Your task to perform on an android device: clear history in the chrome app Image 0: 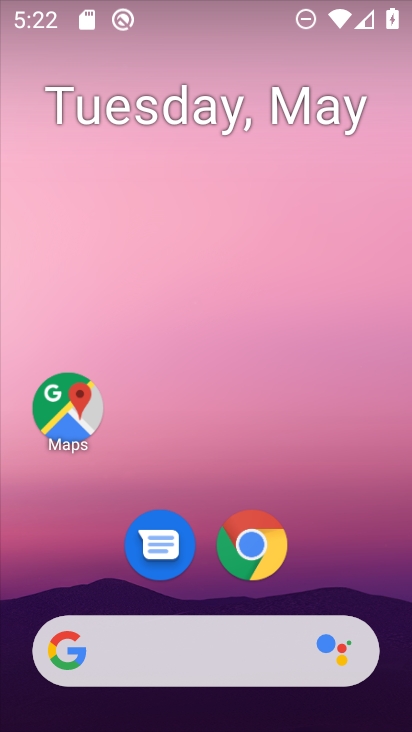
Step 0: drag from (324, 545) to (243, 5)
Your task to perform on an android device: clear history in the chrome app Image 1: 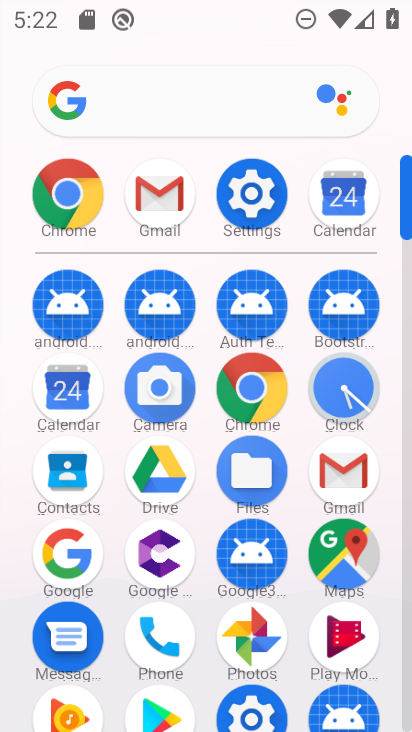
Step 1: drag from (12, 605) to (20, 290)
Your task to perform on an android device: clear history in the chrome app Image 2: 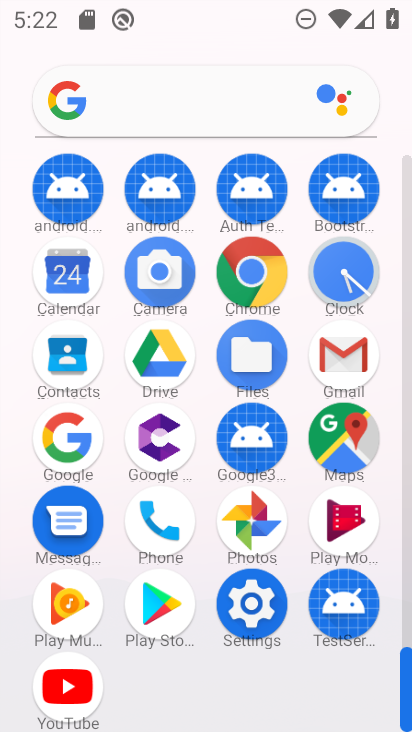
Step 2: click (256, 269)
Your task to perform on an android device: clear history in the chrome app Image 3: 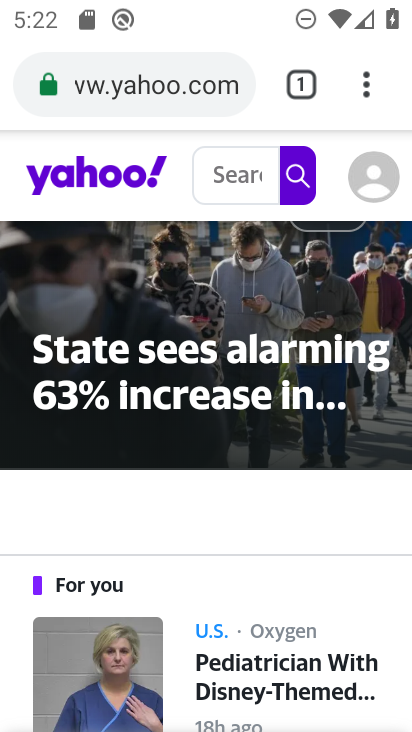
Step 3: drag from (366, 77) to (118, 488)
Your task to perform on an android device: clear history in the chrome app Image 4: 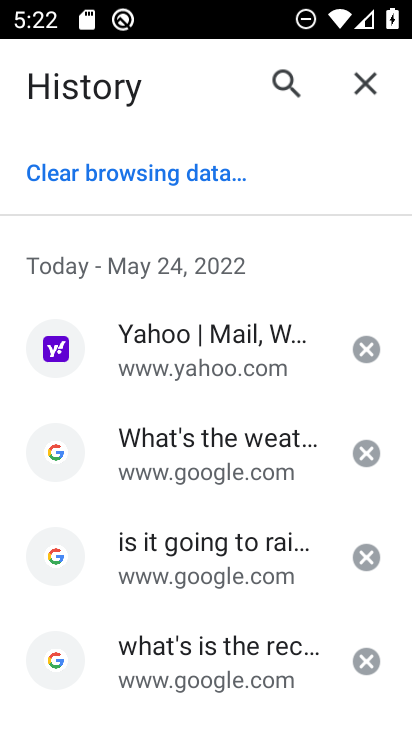
Step 4: click (198, 177)
Your task to perform on an android device: clear history in the chrome app Image 5: 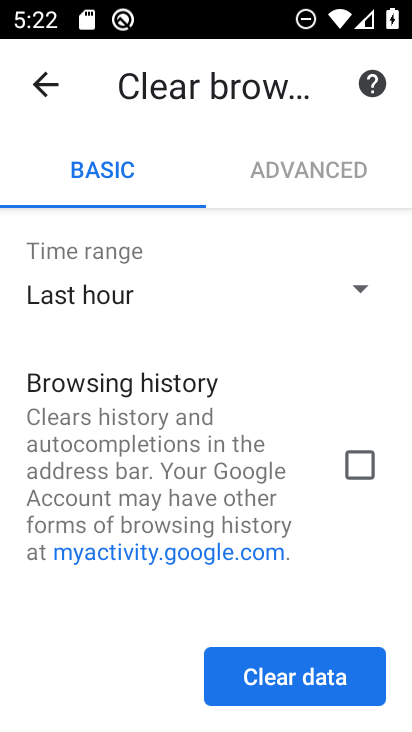
Step 5: drag from (137, 607) to (196, 409)
Your task to perform on an android device: clear history in the chrome app Image 6: 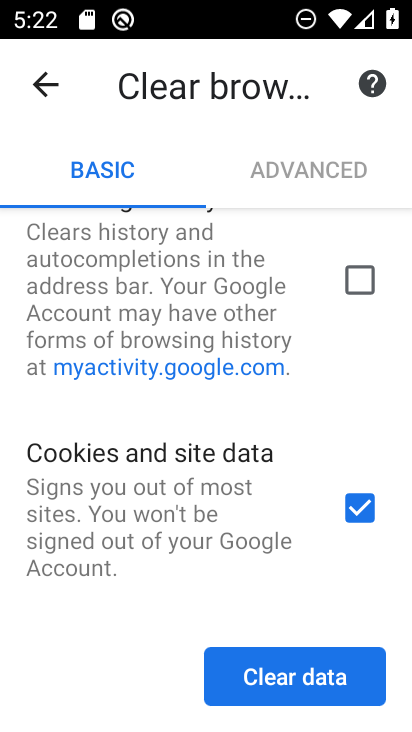
Step 6: click (352, 265)
Your task to perform on an android device: clear history in the chrome app Image 7: 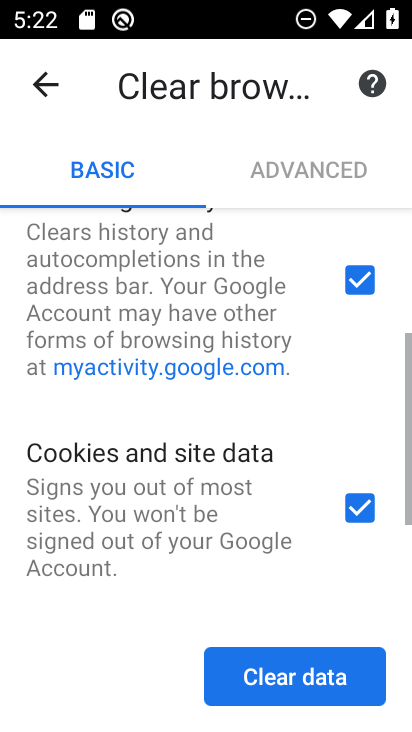
Step 7: click (367, 513)
Your task to perform on an android device: clear history in the chrome app Image 8: 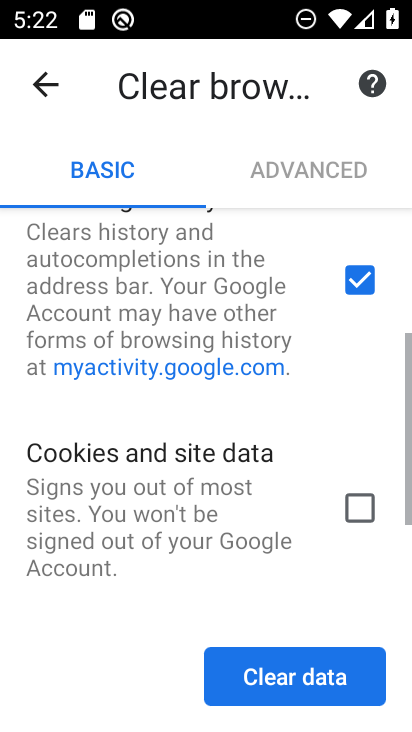
Step 8: drag from (141, 595) to (144, 266)
Your task to perform on an android device: clear history in the chrome app Image 9: 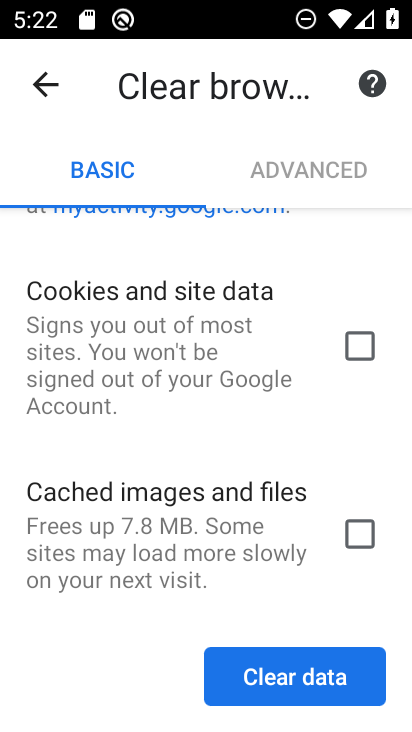
Step 9: click (299, 678)
Your task to perform on an android device: clear history in the chrome app Image 10: 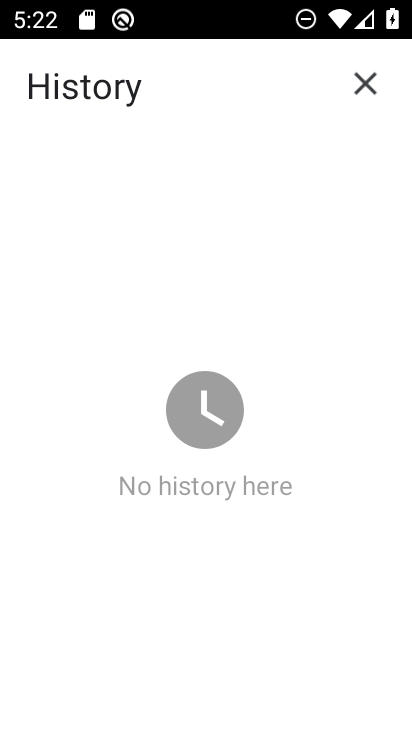
Step 10: task complete